Your task to perform on an android device: all mails in gmail Image 0: 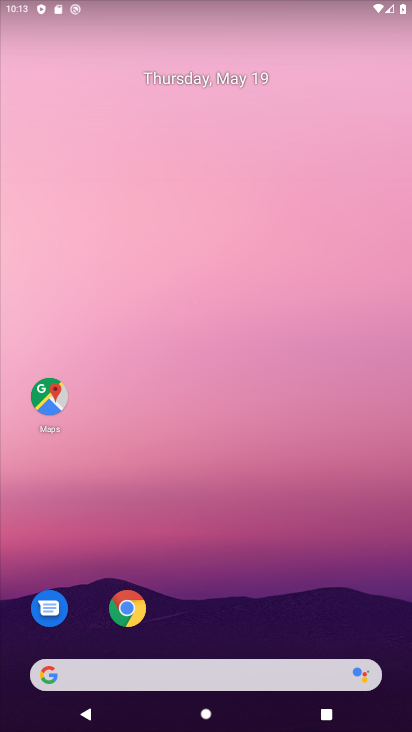
Step 0: drag from (397, 653) to (384, 338)
Your task to perform on an android device: all mails in gmail Image 1: 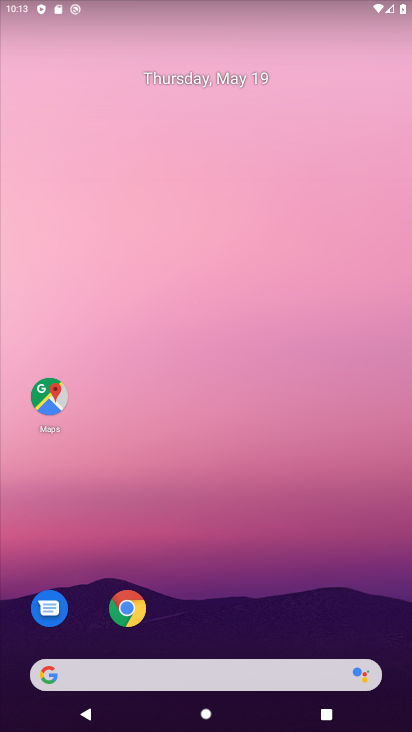
Step 1: drag from (400, 708) to (395, 321)
Your task to perform on an android device: all mails in gmail Image 2: 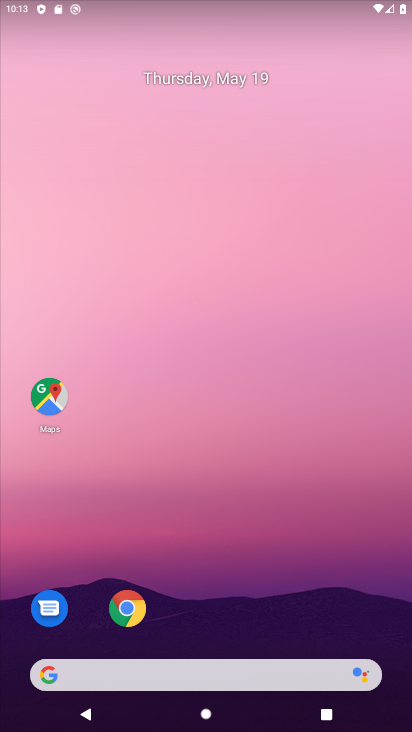
Step 2: drag from (392, 681) to (378, 228)
Your task to perform on an android device: all mails in gmail Image 3: 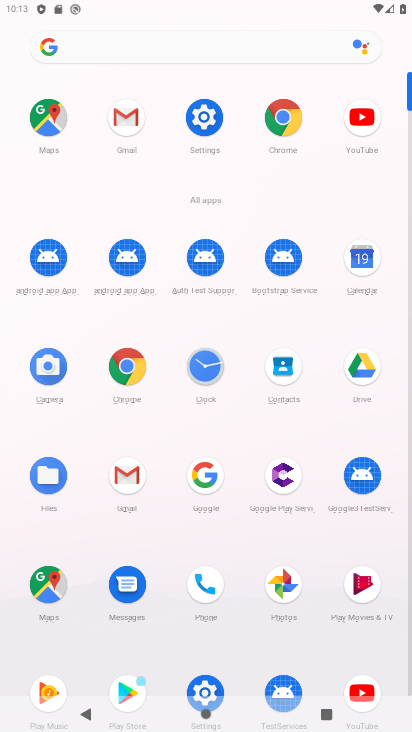
Step 3: click (198, 683)
Your task to perform on an android device: all mails in gmail Image 4: 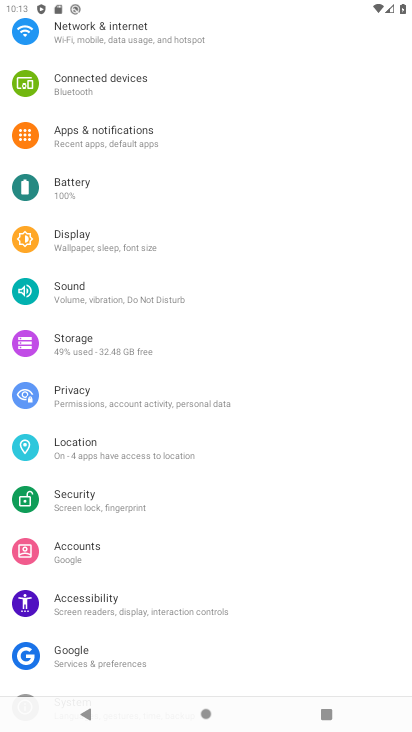
Step 4: press home button
Your task to perform on an android device: all mails in gmail Image 5: 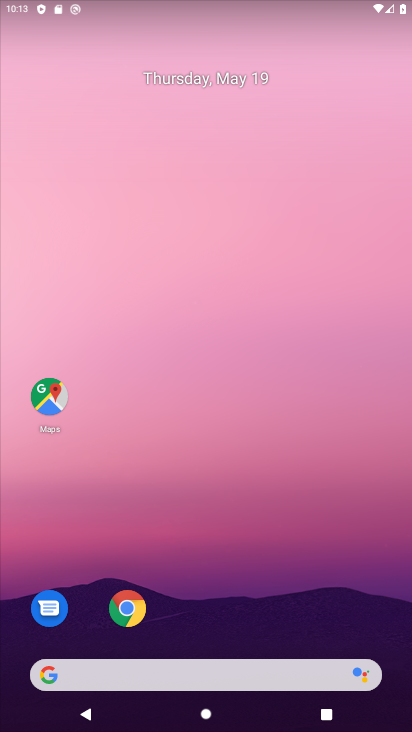
Step 5: drag from (379, 605) to (353, 243)
Your task to perform on an android device: all mails in gmail Image 6: 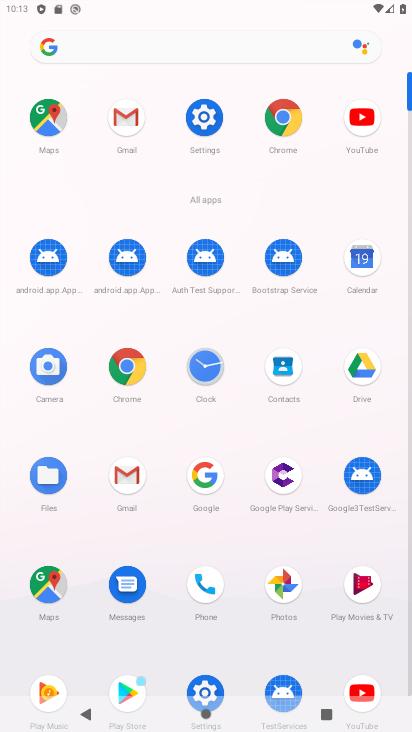
Step 6: click (129, 488)
Your task to perform on an android device: all mails in gmail Image 7: 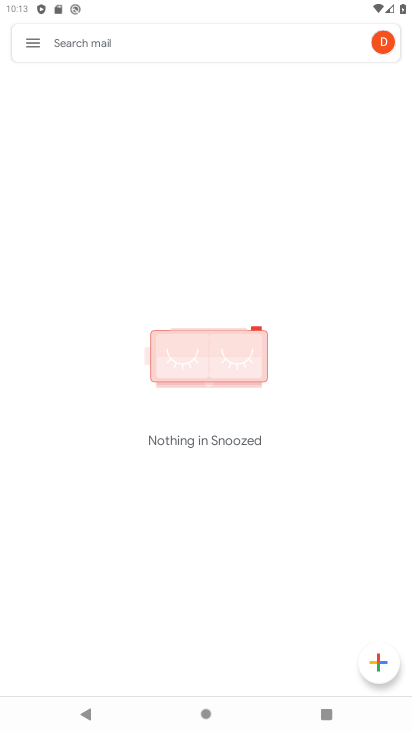
Step 7: click (30, 45)
Your task to perform on an android device: all mails in gmail Image 8: 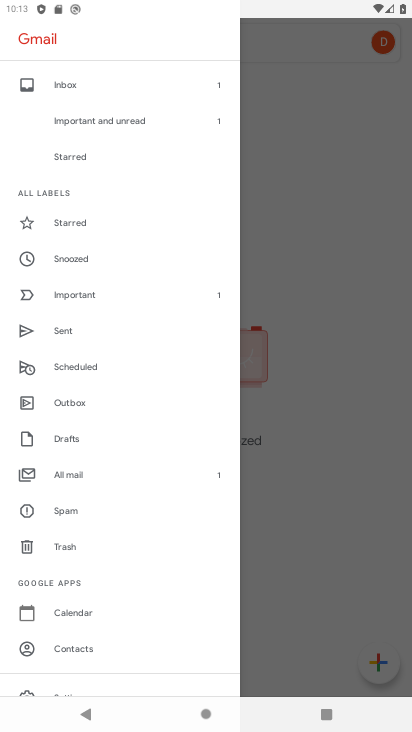
Step 8: click (58, 472)
Your task to perform on an android device: all mails in gmail Image 9: 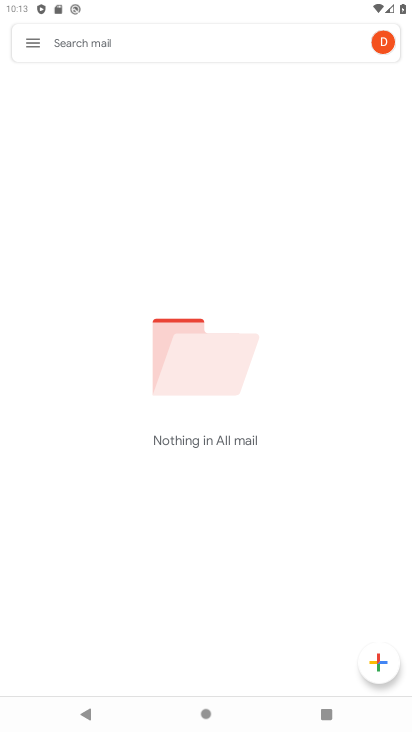
Step 9: task complete